Your task to perform on an android device: Empty the shopping cart on target. Add "bose soundlink mini" to the cart on target, then select checkout. Image 0: 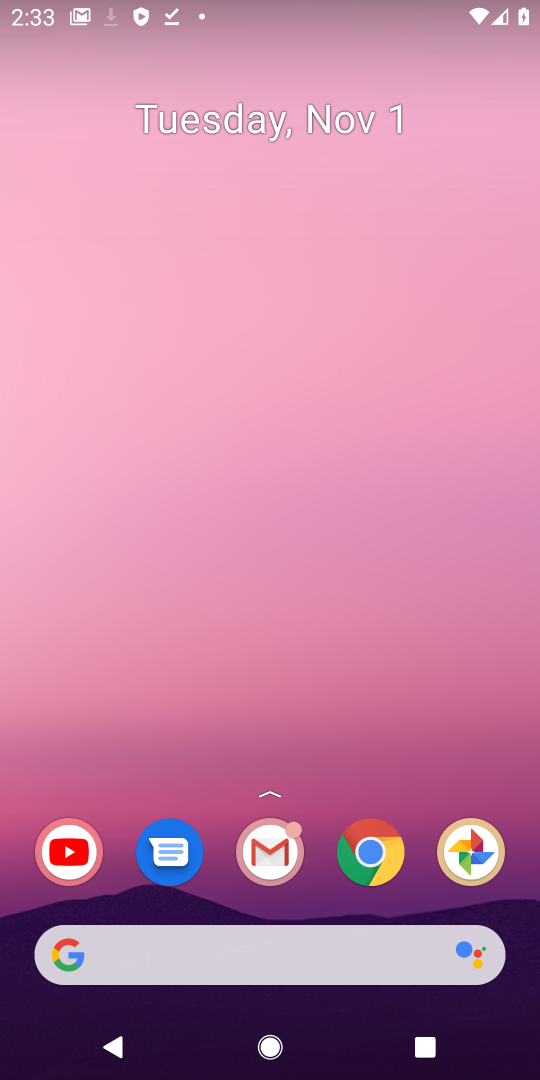
Step 0: click (259, 966)
Your task to perform on an android device: Empty the shopping cart on target. Add "bose soundlink mini" to the cart on target, then select checkout. Image 1: 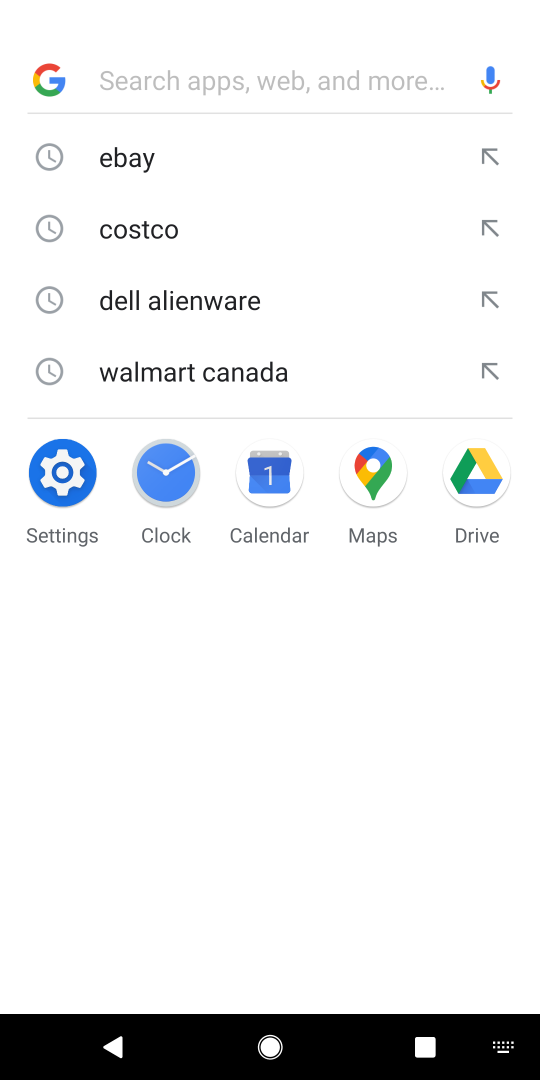
Step 1: type "target"
Your task to perform on an android device: Empty the shopping cart on target. Add "bose soundlink mini" to the cart on target, then select checkout. Image 2: 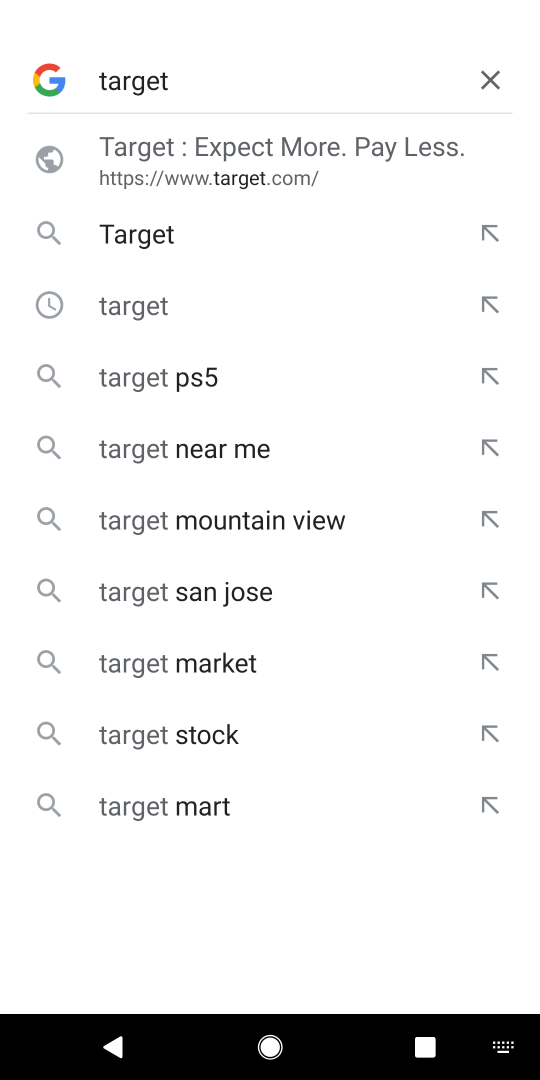
Step 2: type ""
Your task to perform on an android device: Empty the shopping cart on target. Add "bose soundlink mini" to the cart on target, then select checkout. Image 3: 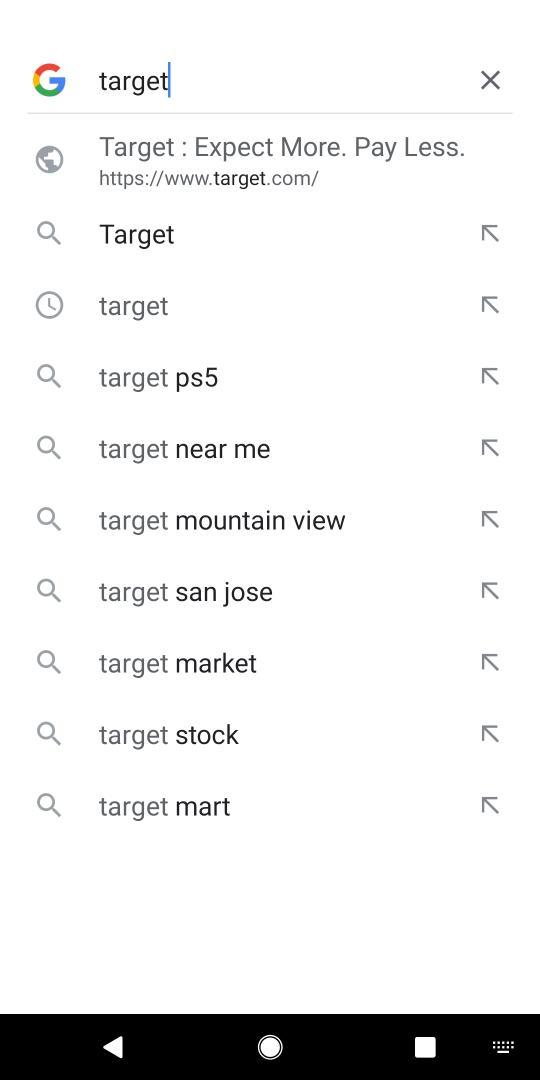
Step 3: type ""
Your task to perform on an android device: Empty the shopping cart on target. Add "bose soundlink mini" to the cart on target, then select checkout. Image 4: 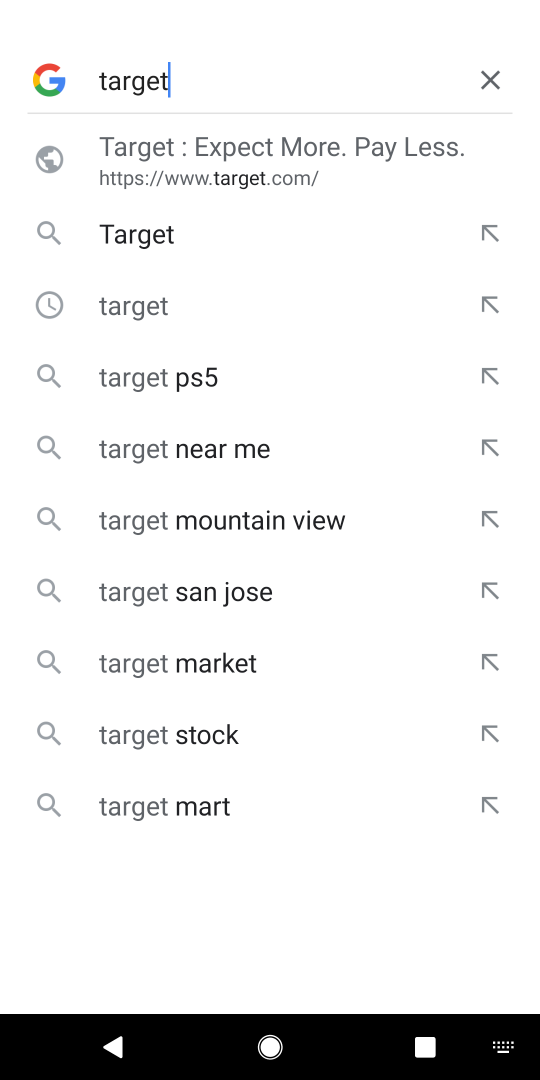
Step 4: click (195, 164)
Your task to perform on an android device: Empty the shopping cart on target. Add "bose soundlink mini" to the cart on target, then select checkout. Image 5: 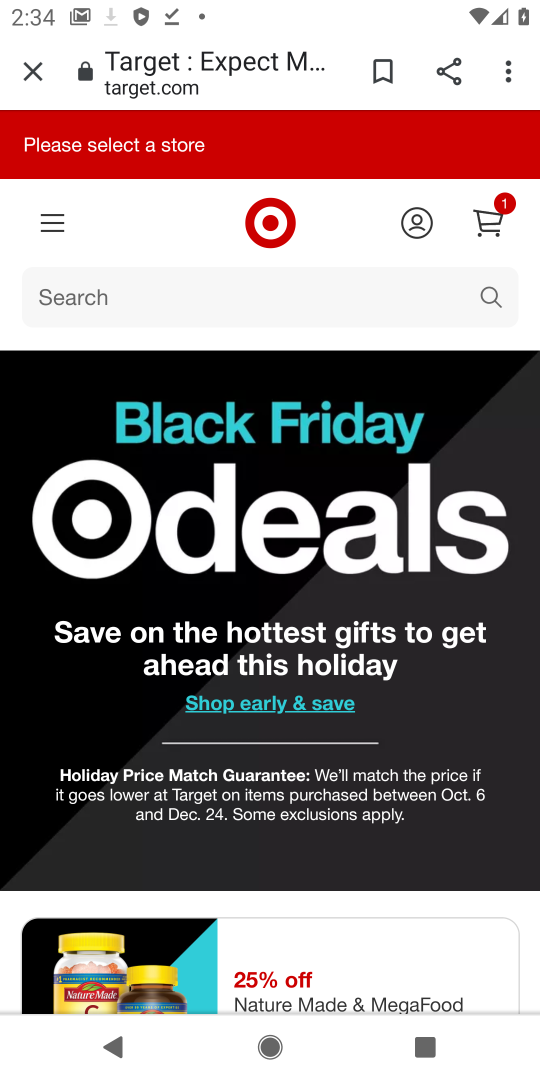
Step 5: click (300, 301)
Your task to perform on an android device: Empty the shopping cart on target. Add "bose soundlink mini" to the cart on target, then select checkout. Image 6: 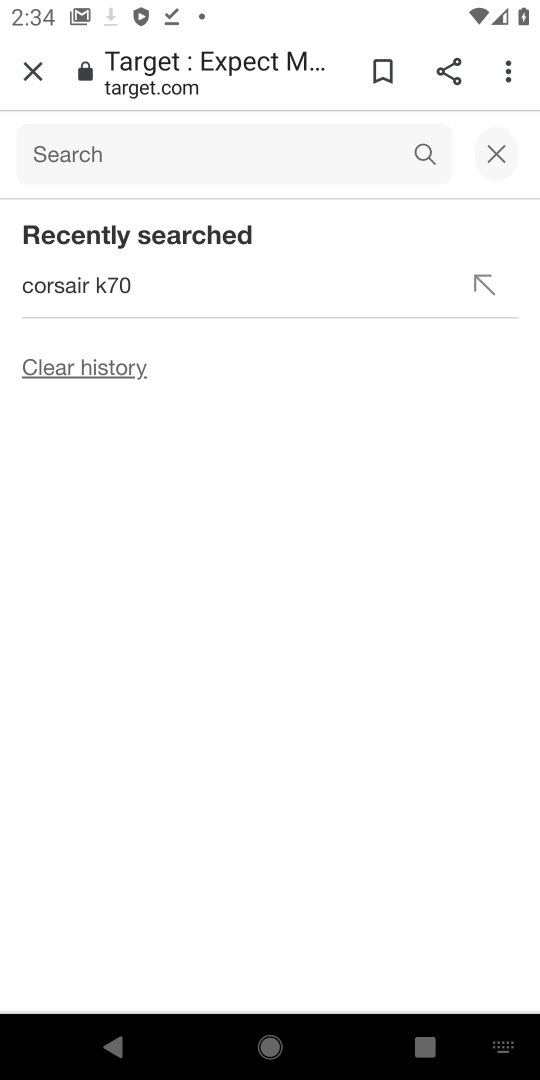
Step 6: type "bose soundlink mini"
Your task to perform on an android device: Empty the shopping cart on target. Add "bose soundlink mini" to the cart on target, then select checkout. Image 7: 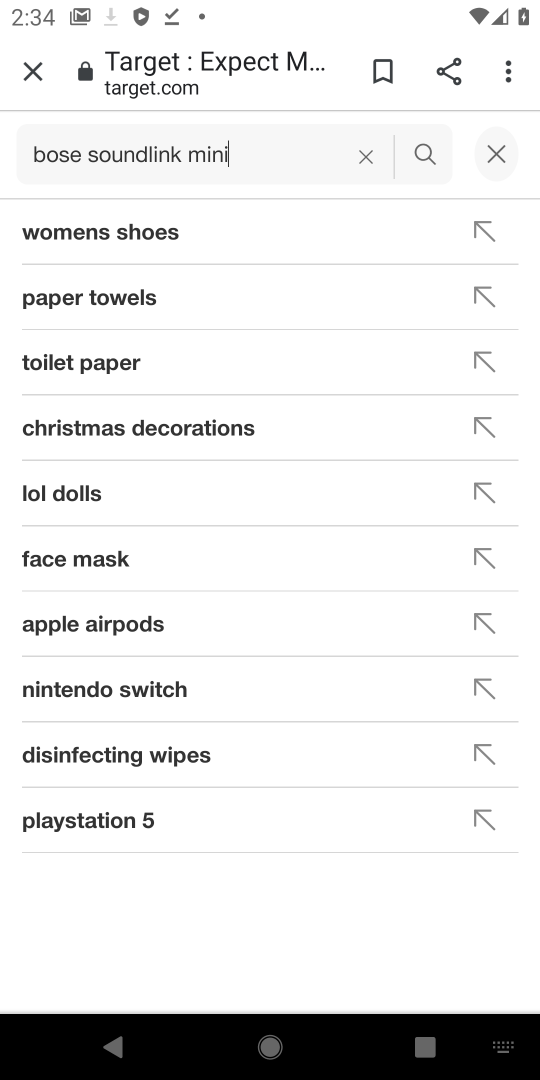
Step 7: type ""
Your task to perform on an android device: Empty the shopping cart on target. Add "bose soundlink mini" to the cart on target, then select checkout. Image 8: 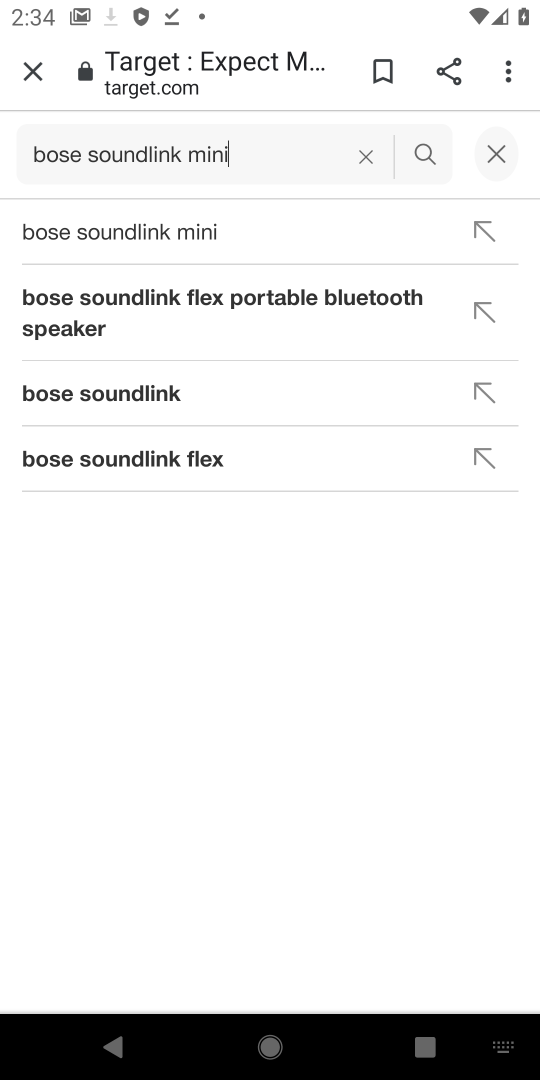
Step 8: press enter
Your task to perform on an android device: Empty the shopping cart on target. Add "bose soundlink mini" to the cart on target, then select checkout. Image 9: 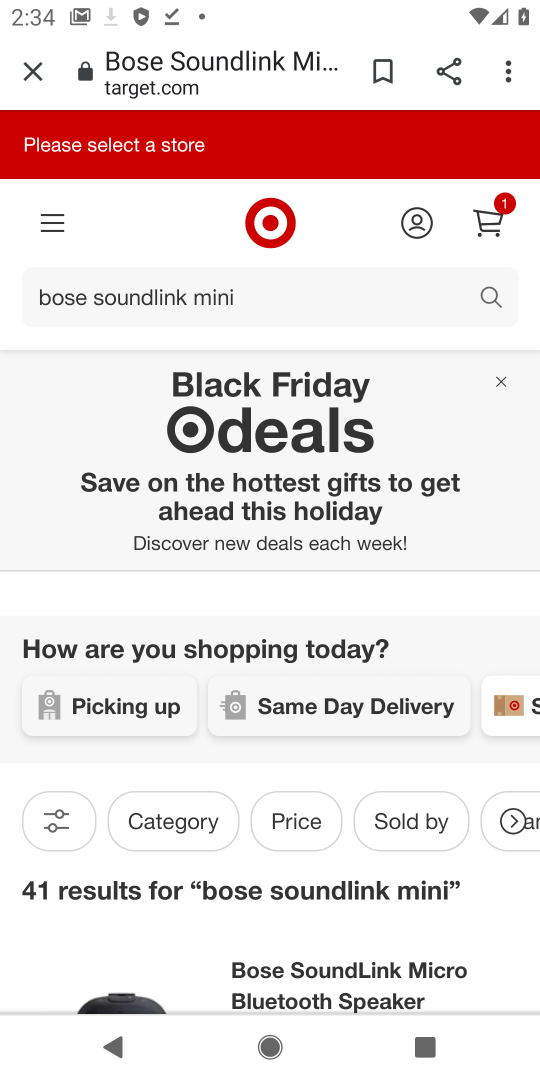
Step 9: drag from (272, 587) to (272, 325)
Your task to perform on an android device: Empty the shopping cart on target. Add "bose soundlink mini" to the cart on target, then select checkout. Image 10: 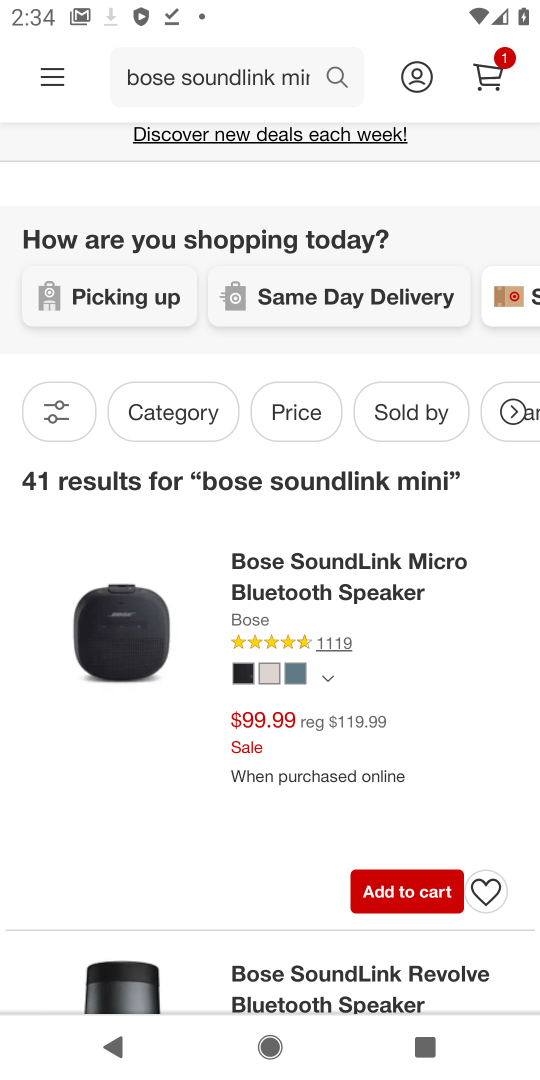
Step 10: click (334, 588)
Your task to perform on an android device: Empty the shopping cart on target. Add "bose soundlink mini" to the cart on target, then select checkout. Image 11: 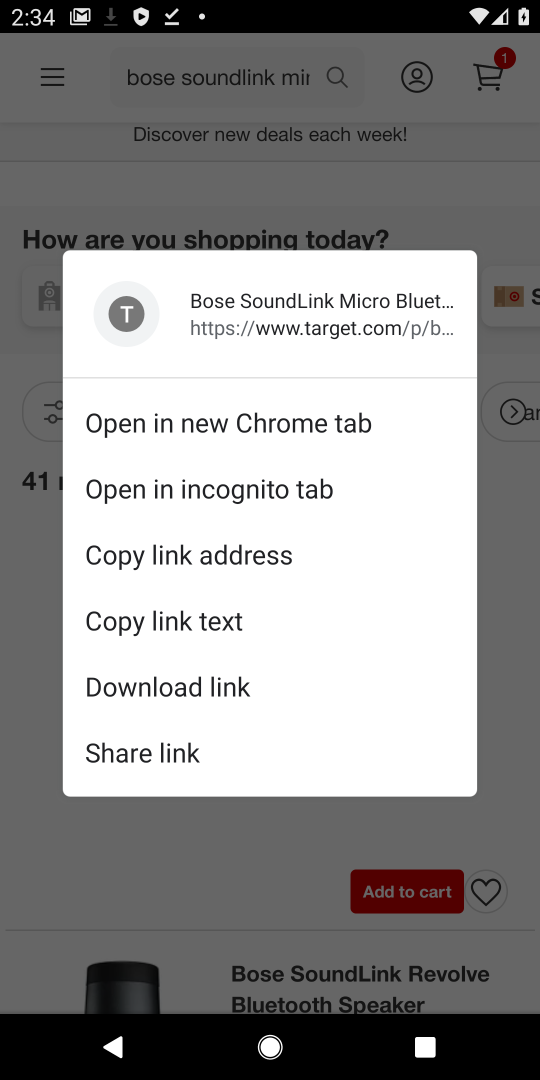
Step 11: click (518, 595)
Your task to perform on an android device: Empty the shopping cart on target. Add "bose soundlink mini" to the cart on target, then select checkout. Image 12: 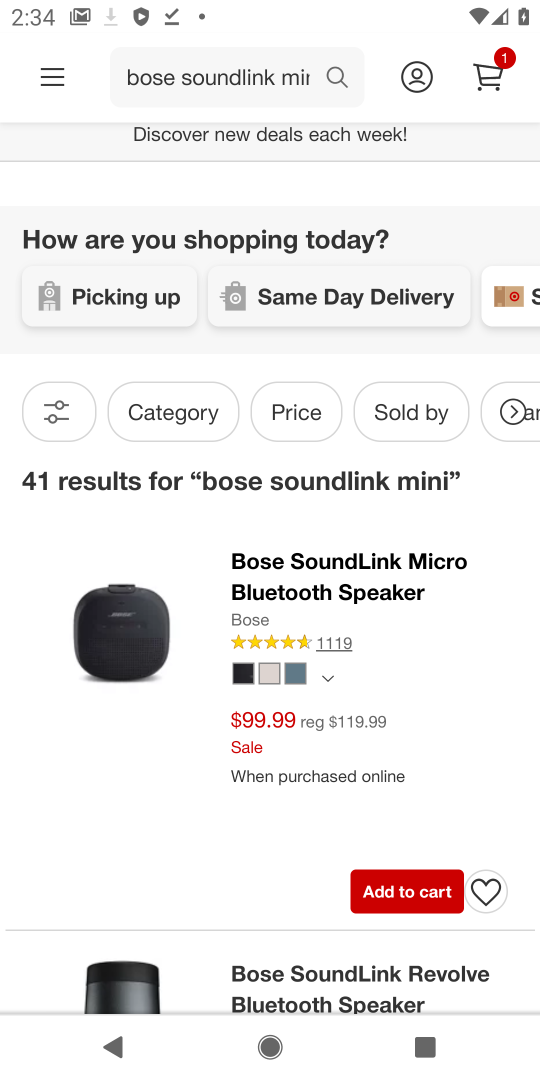
Step 12: click (408, 578)
Your task to perform on an android device: Empty the shopping cart on target. Add "bose soundlink mini" to the cart on target, then select checkout. Image 13: 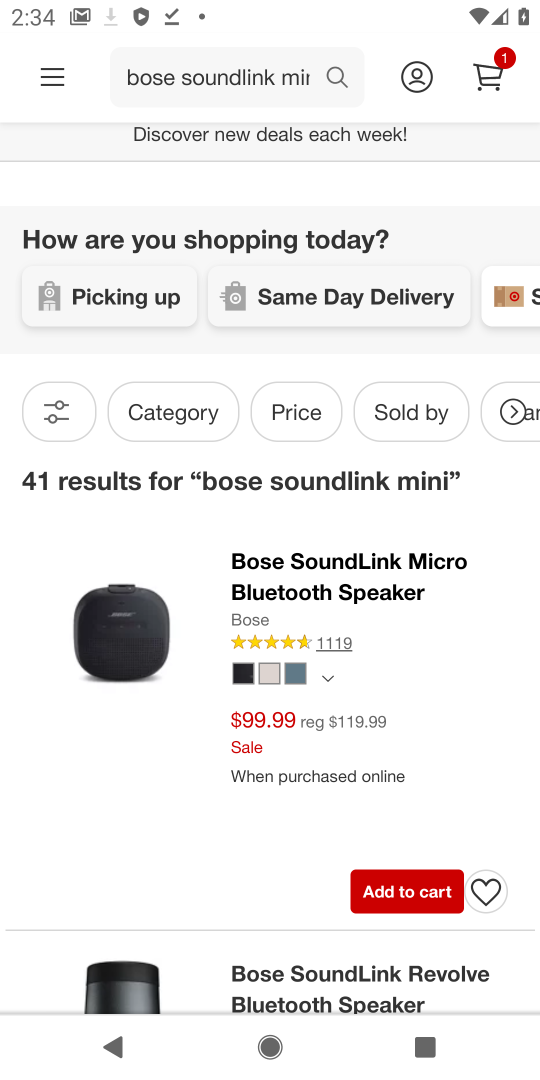
Step 13: click (418, 880)
Your task to perform on an android device: Empty the shopping cart on target. Add "bose soundlink mini" to the cart on target, then select checkout. Image 14: 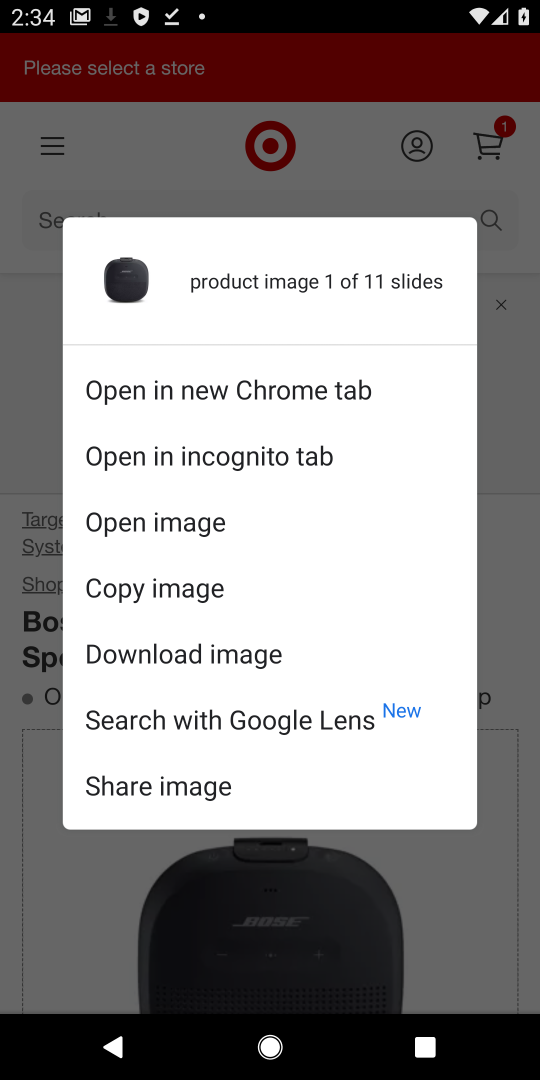
Step 14: drag from (402, 855) to (390, 400)
Your task to perform on an android device: Empty the shopping cart on target. Add "bose soundlink mini" to the cart on target, then select checkout. Image 15: 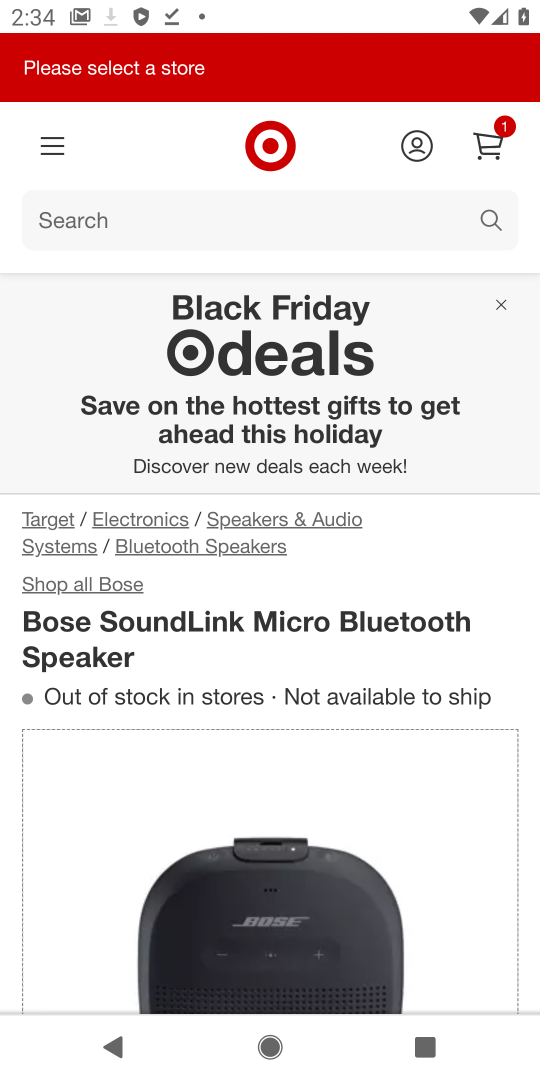
Step 15: drag from (23, 712) to (148, 119)
Your task to perform on an android device: Empty the shopping cart on target. Add "bose soundlink mini" to the cart on target, then select checkout. Image 16: 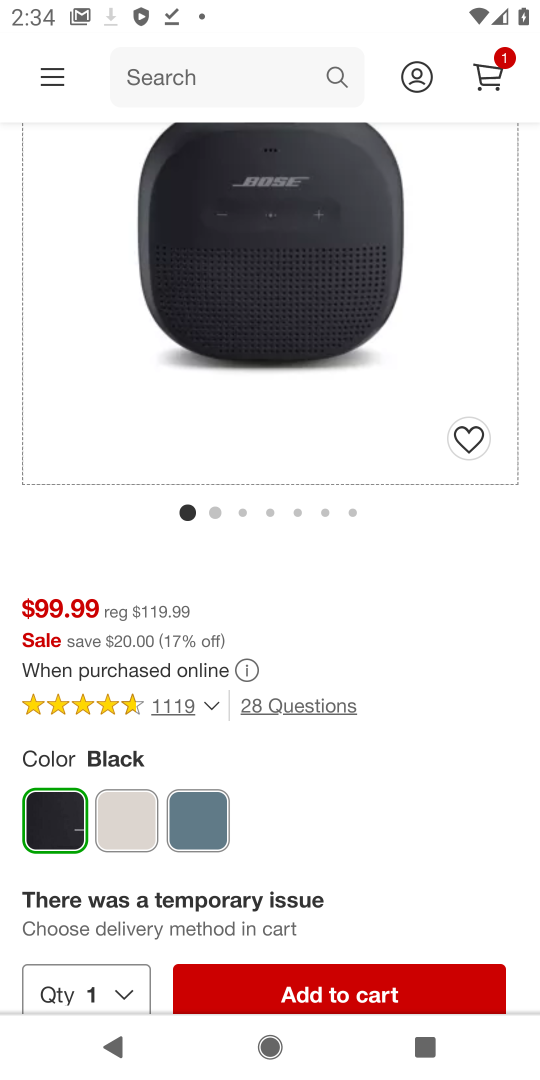
Step 16: click (375, 991)
Your task to perform on an android device: Empty the shopping cart on target. Add "bose soundlink mini" to the cart on target, then select checkout. Image 17: 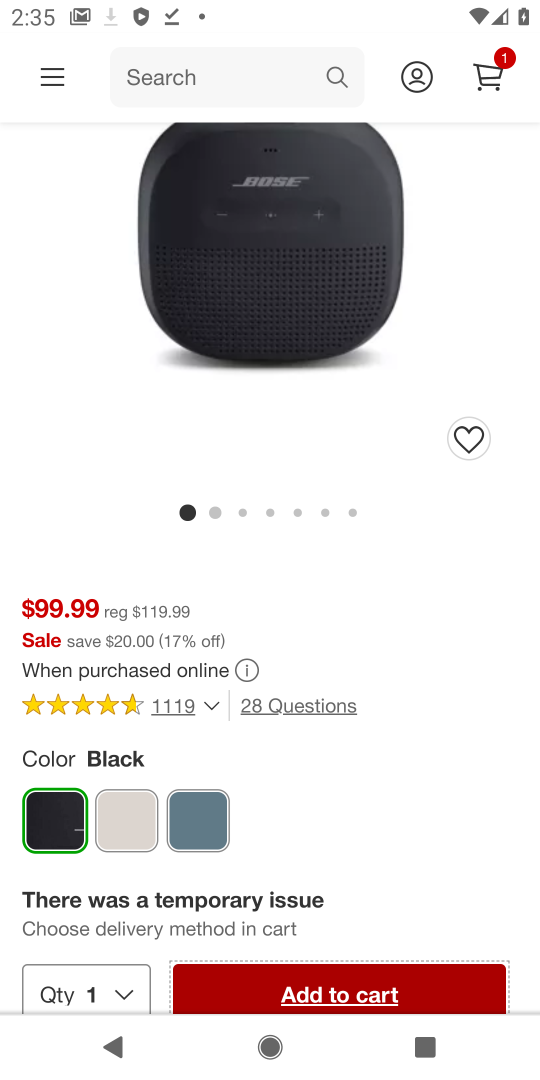
Step 17: click (375, 991)
Your task to perform on an android device: Empty the shopping cart on target. Add "bose soundlink mini" to the cart on target, then select checkout. Image 18: 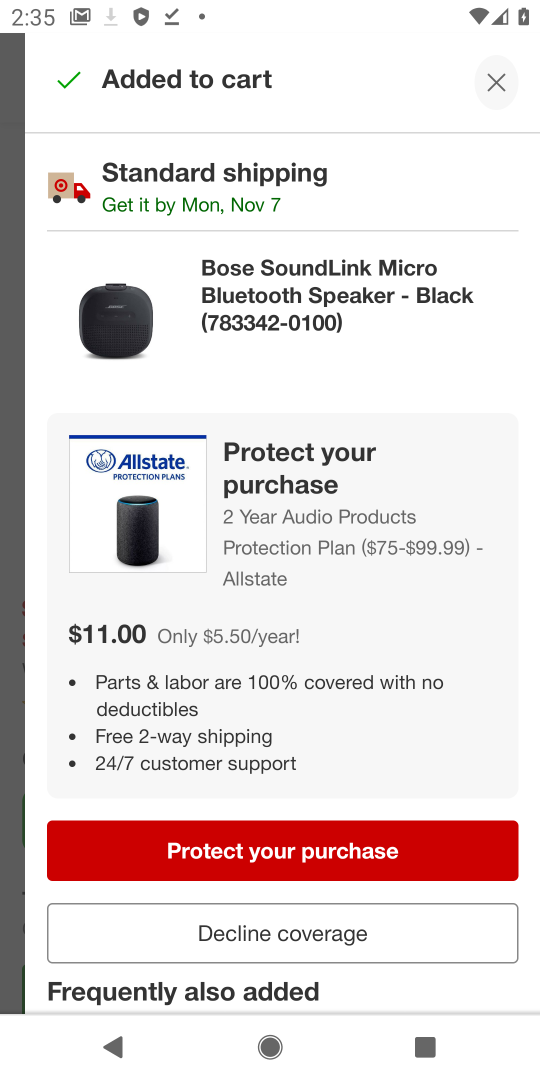
Step 18: task complete